Your task to perform on an android device: Go to battery settings Image 0: 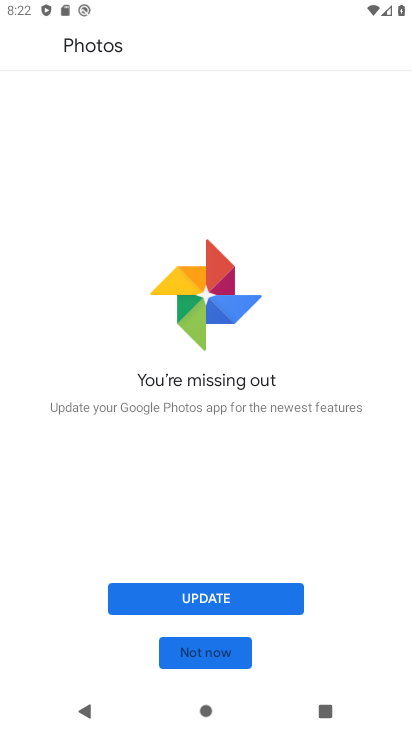
Step 0: press home button
Your task to perform on an android device: Go to battery settings Image 1: 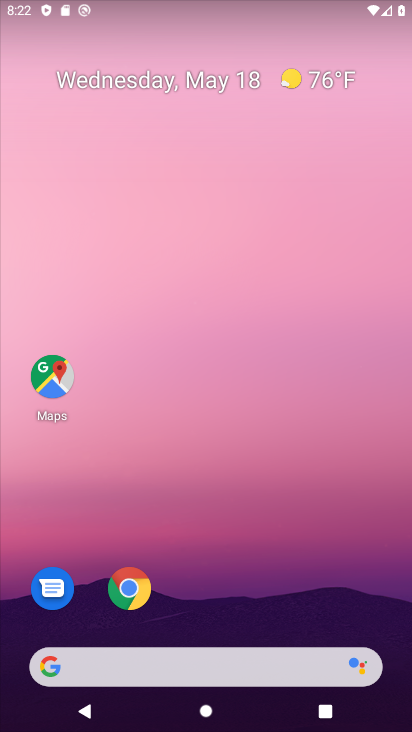
Step 1: drag from (350, 594) to (191, 142)
Your task to perform on an android device: Go to battery settings Image 2: 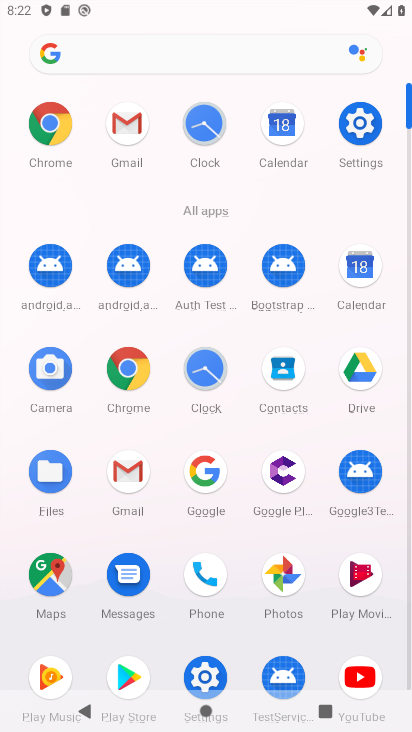
Step 2: click (354, 142)
Your task to perform on an android device: Go to battery settings Image 3: 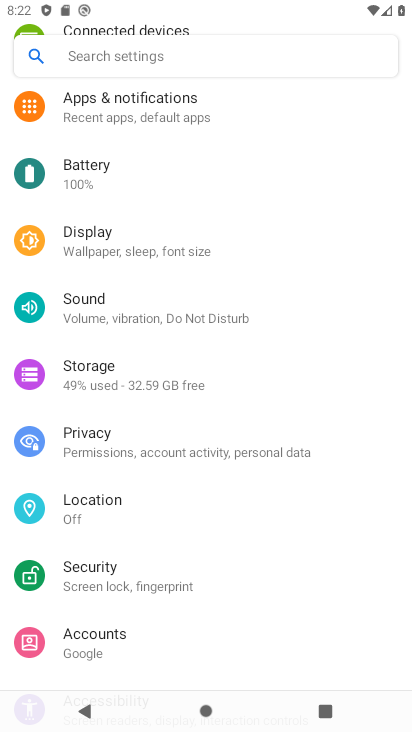
Step 3: drag from (274, 171) to (223, 323)
Your task to perform on an android device: Go to battery settings Image 4: 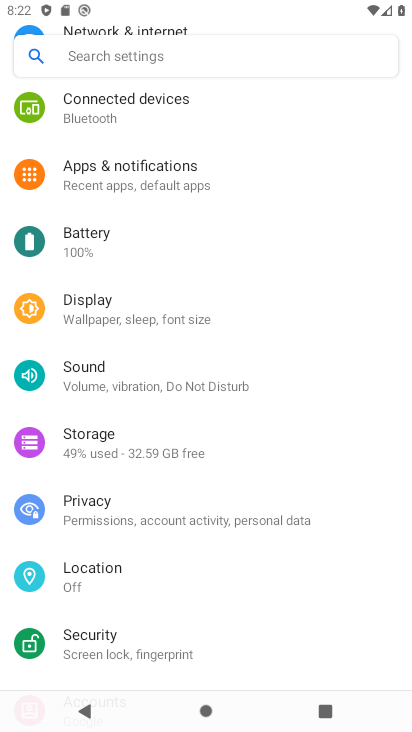
Step 4: click (107, 262)
Your task to perform on an android device: Go to battery settings Image 5: 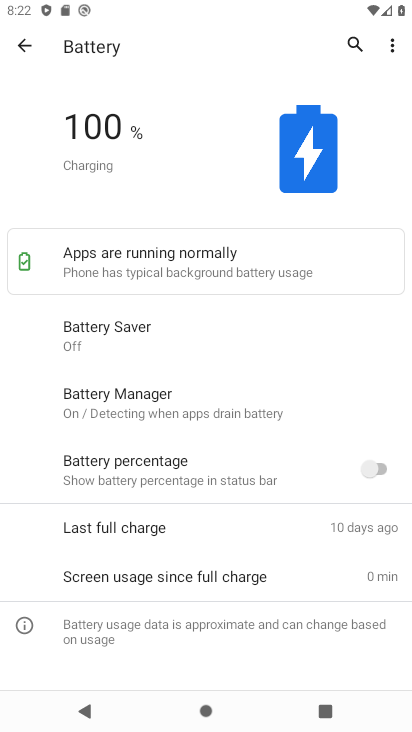
Step 5: task complete